Your task to perform on an android device: check battery use Image 0: 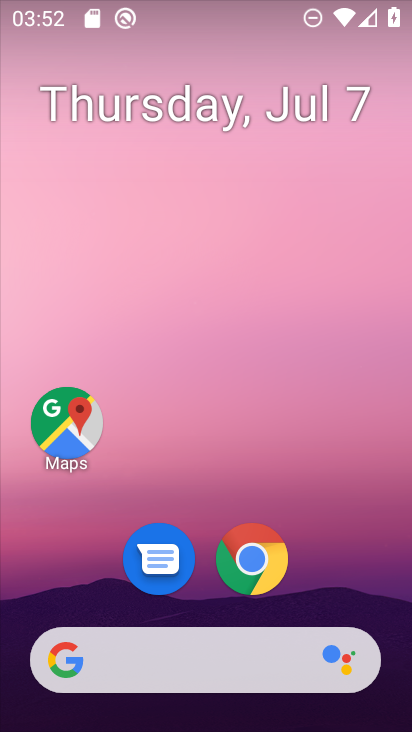
Step 0: drag from (367, 561) to (361, 184)
Your task to perform on an android device: check battery use Image 1: 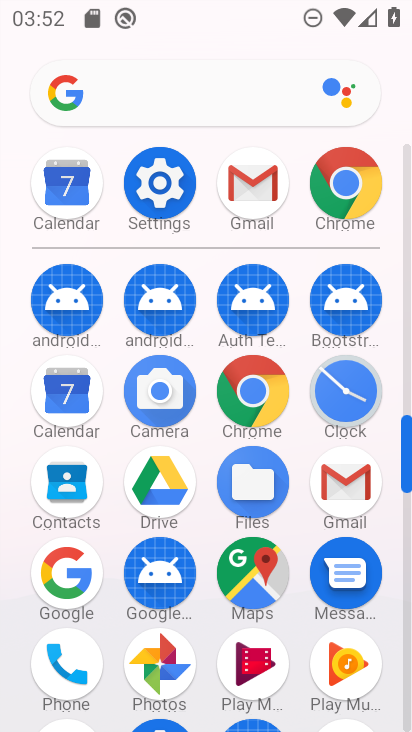
Step 1: click (168, 194)
Your task to perform on an android device: check battery use Image 2: 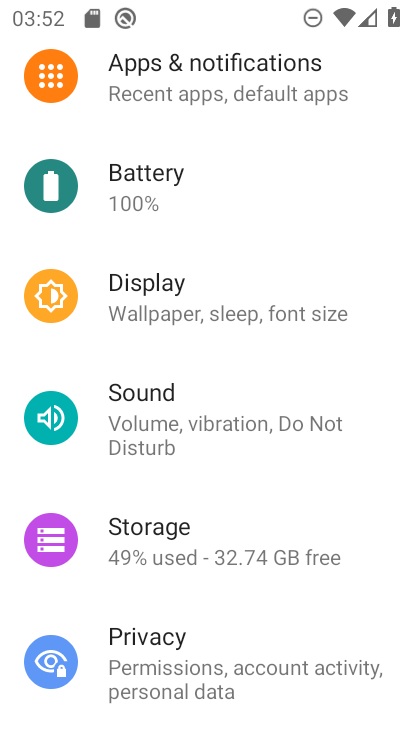
Step 2: drag from (339, 180) to (351, 273)
Your task to perform on an android device: check battery use Image 3: 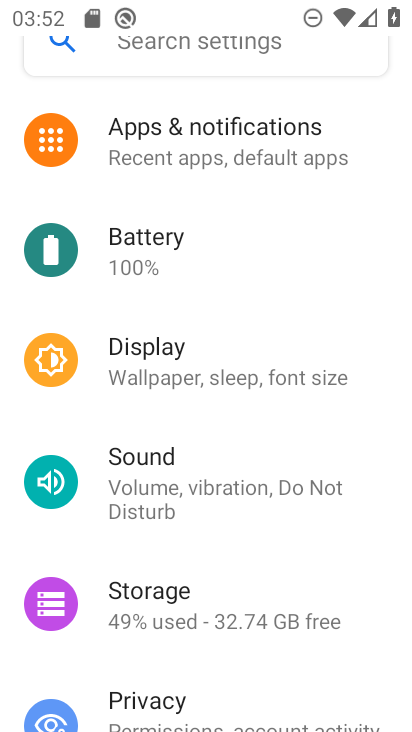
Step 3: drag from (367, 177) to (373, 263)
Your task to perform on an android device: check battery use Image 4: 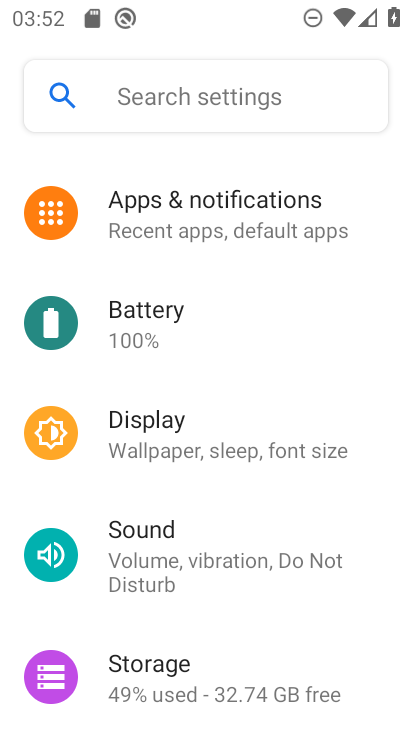
Step 4: drag from (367, 193) to (372, 299)
Your task to perform on an android device: check battery use Image 5: 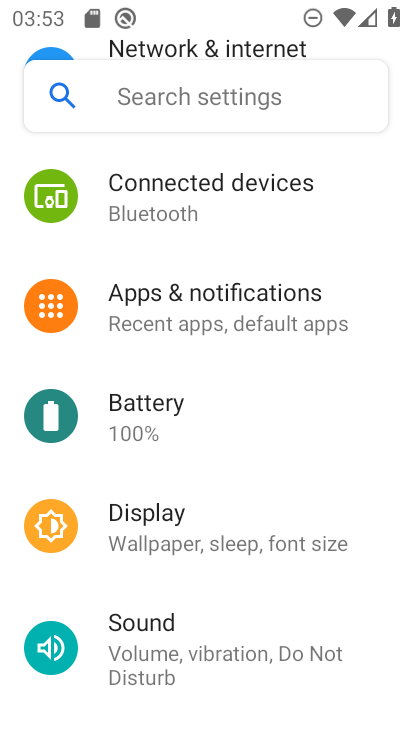
Step 5: drag from (358, 204) to (368, 378)
Your task to perform on an android device: check battery use Image 6: 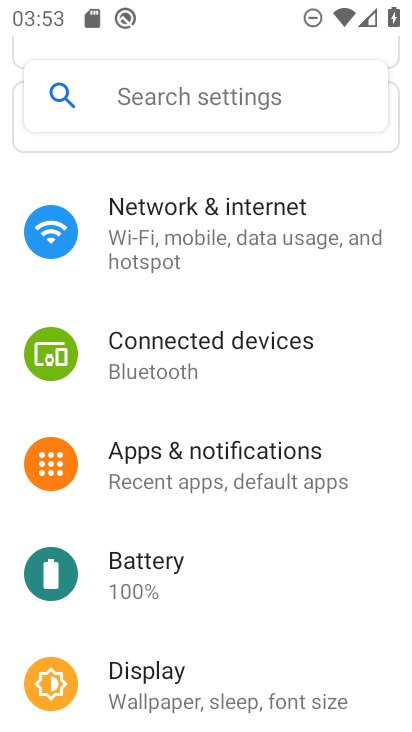
Step 6: click (162, 570)
Your task to perform on an android device: check battery use Image 7: 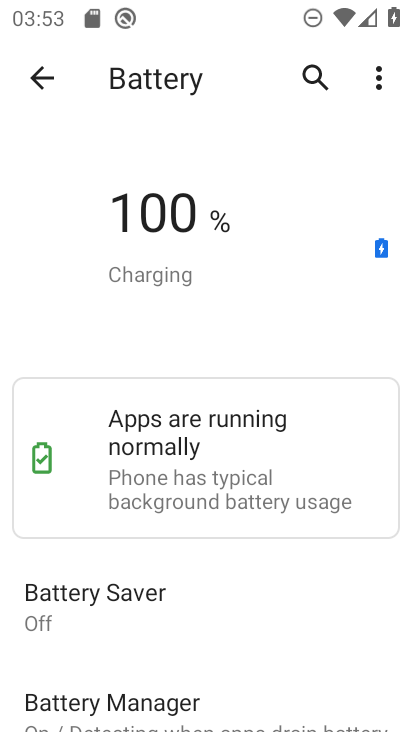
Step 7: click (378, 86)
Your task to perform on an android device: check battery use Image 8: 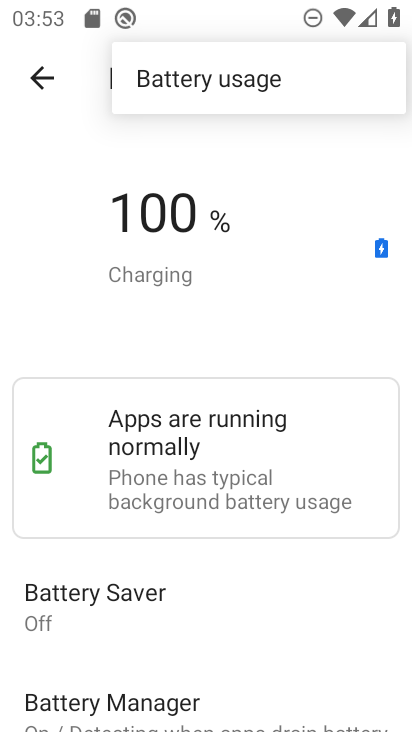
Step 8: click (270, 92)
Your task to perform on an android device: check battery use Image 9: 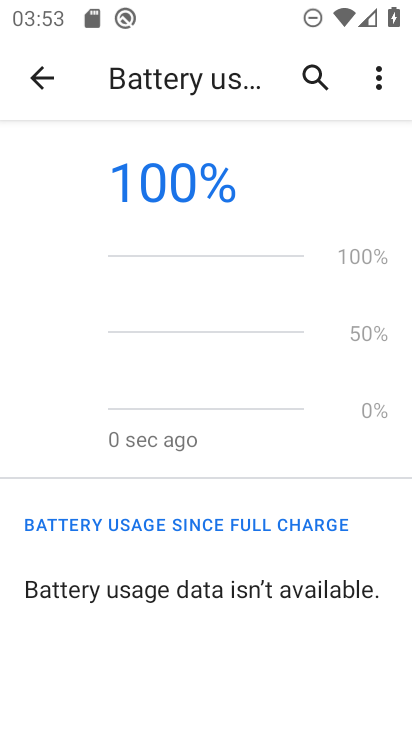
Step 9: task complete